Your task to perform on an android device: turn off improve location accuracy Image 0: 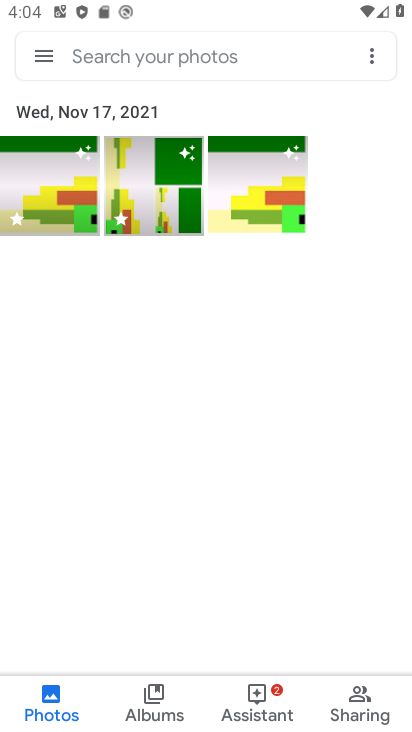
Step 0: press home button
Your task to perform on an android device: turn off improve location accuracy Image 1: 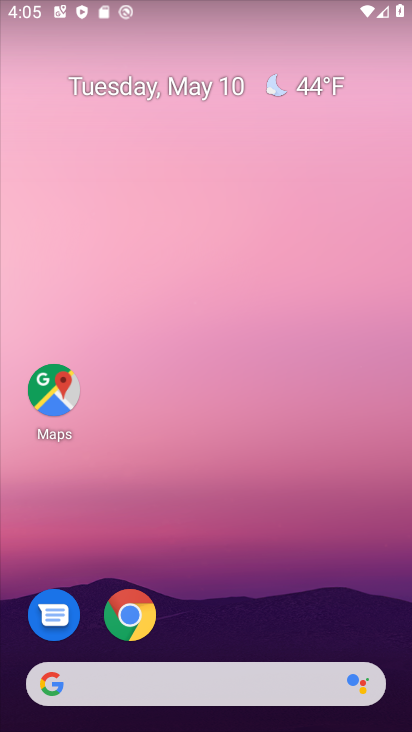
Step 1: drag from (215, 683) to (211, 122)
Your task to perform on an android device: turn off improve location accuracy Image 2: 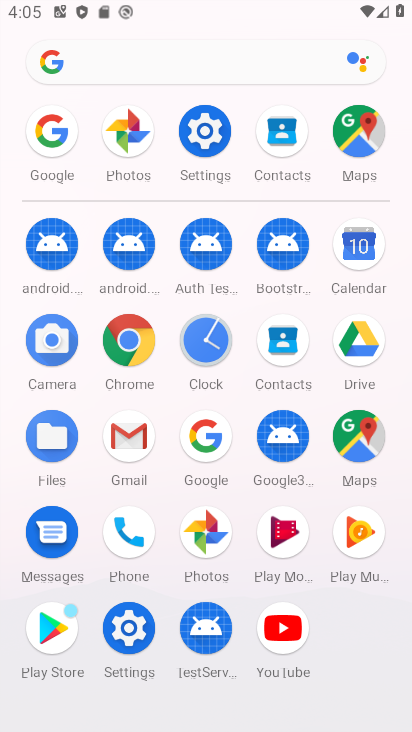
Step 2: click (197, 123)
Your task to perform on an android device: turn off improve location accuracy Image 3: 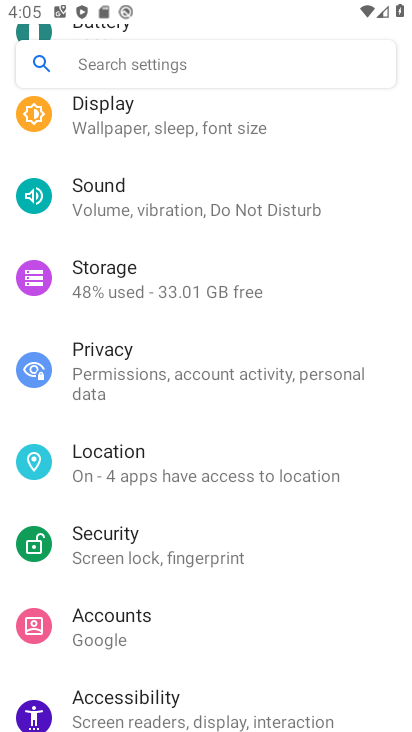
Step 3: click (150, 467)
Your task to perform on an android device: turn off improve location accuracy Image 4: 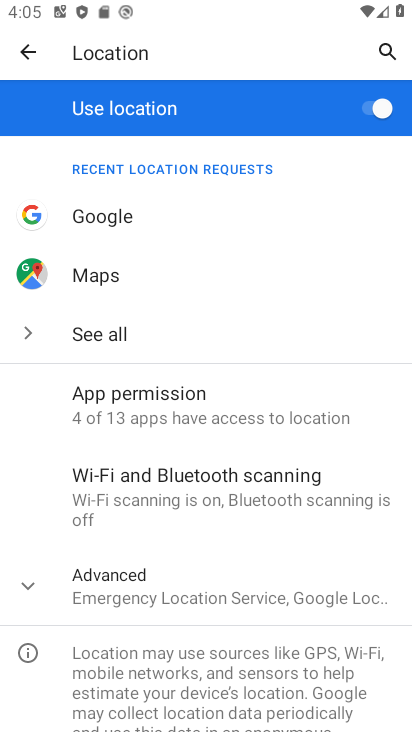
Step 4: click (150, 589)
Your task to perform on an android device: turn off improve location accuracy Image 5: 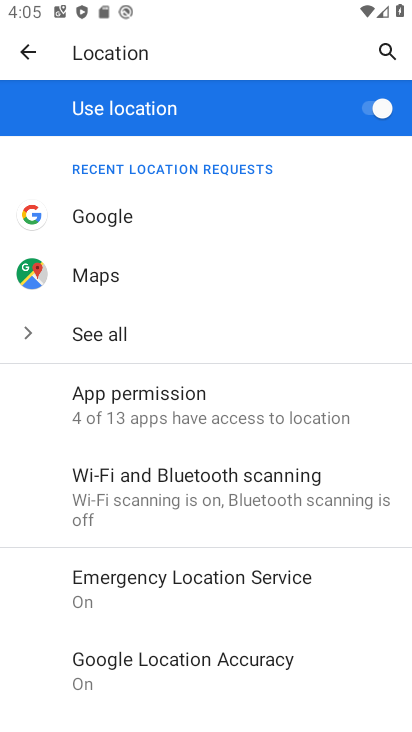
Step 5: click (175, 655)
Your task to perform on an android device: turn off improve location accuracy Image 6: 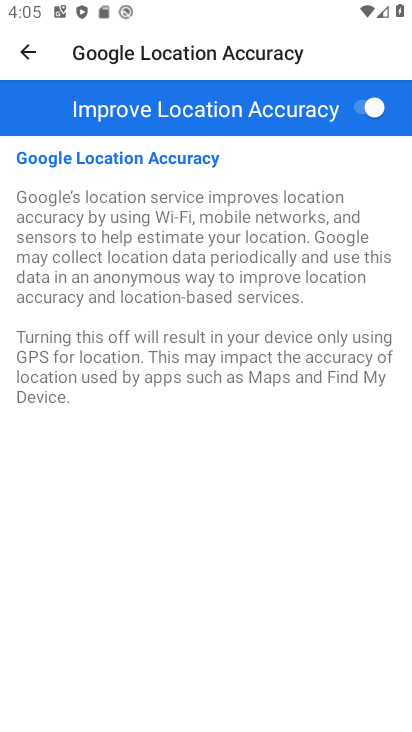
Step 6: click (361, 104)
Your task to perform on an android device: turn off improve location accuracy Image 7: 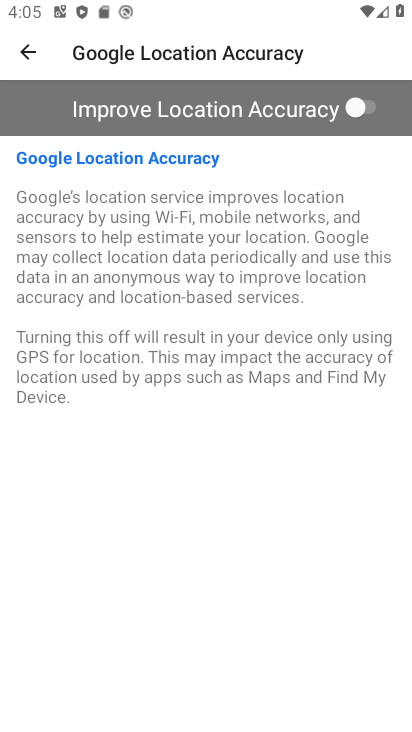
Step 7: task complete